Your task to perform on an android device: Open Google Maps Image 0: 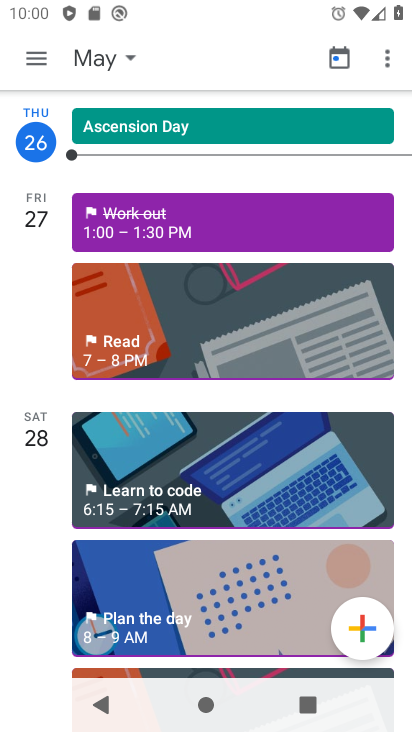
Step 0: press home button
Your task to perform on an android device: Open Google Maps Image 1: 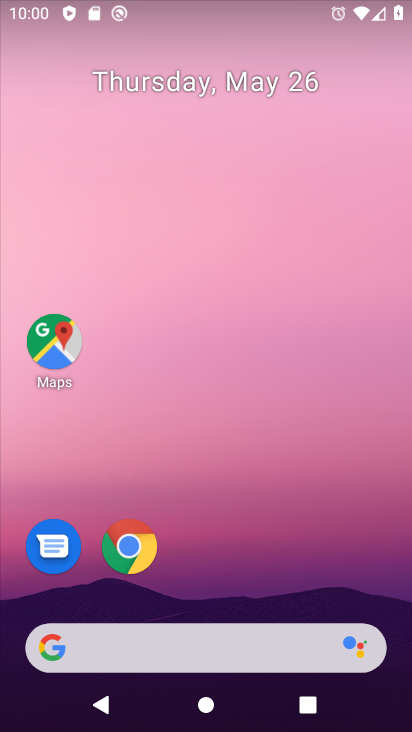
Step 1: click (56, 340)
Your task to perform on an android device: Open Google Maps Image 2: 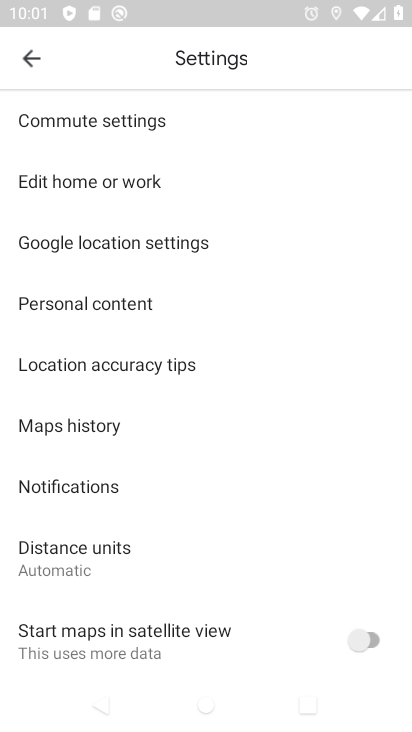
Step 2: click (31, 59)
Your task to perform on an android device: Open Google Maps Image 3: 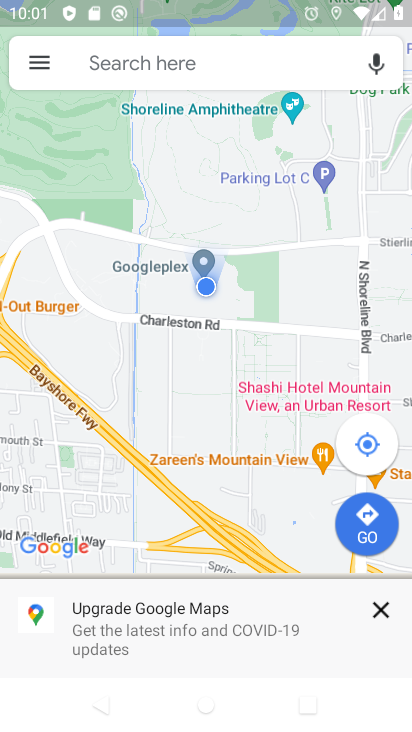
Step 3: task complete